Your task to perform on an android device: Open the calendar and show me this week's events? Image 0: 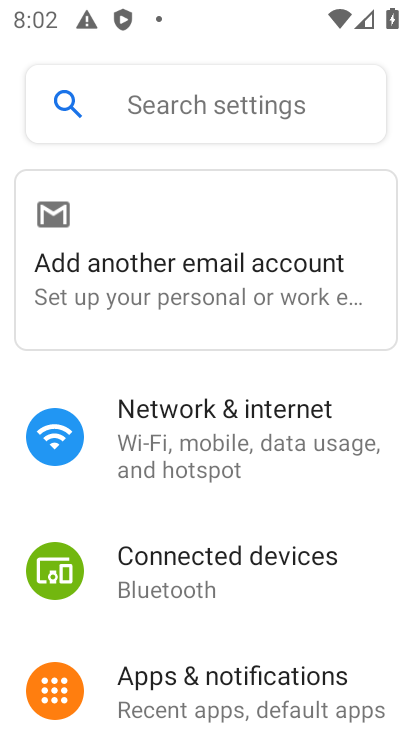
Step 0: press home button
Your task to perform on an android device: Open the calendar and show me this week's events? Image 1: 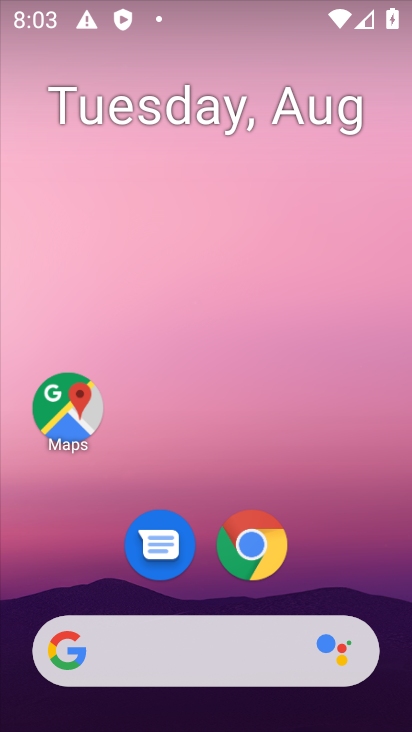
Step 1: drag from (48, 459) to (196, 68)
Your task to perform on an android device: Open the calendar and show me this week's events? Image 2: 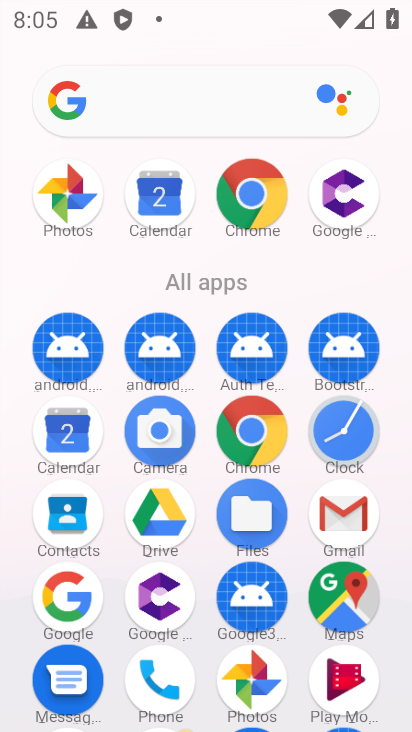
Step 2: click (141, 202)
Your task to perform on an android device: Open the calendar and show me this week's events? Image 3: 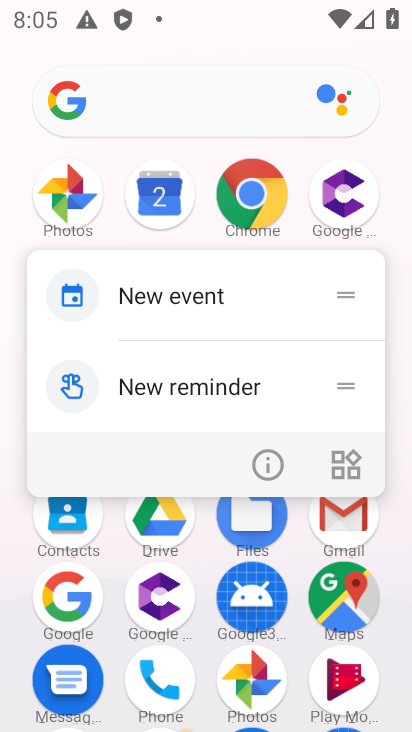
Step 3: click (142, 201)
Your task to perform on an android device: Open the calendar and show me this week's events? Image 4: 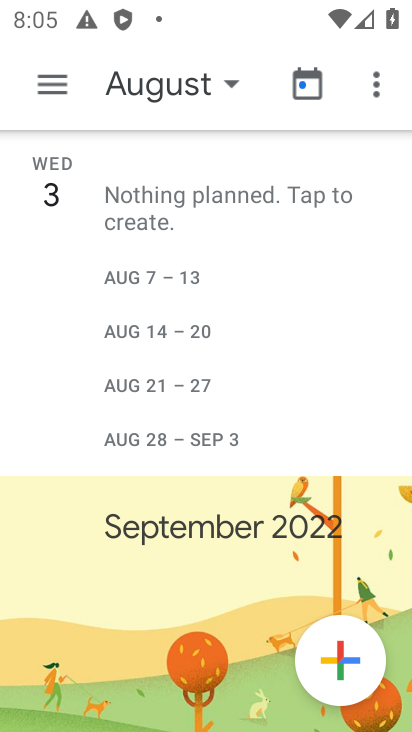
Step 4: click (181, 87)
Your task to perform on an android device: Open the calendar and show me this week's events? Image 5: 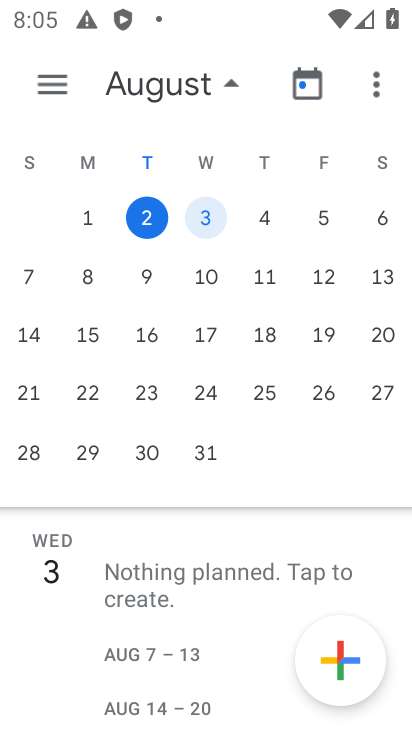
Step 5: click (89, 279)
Your task to perform on an android device: Open the calendar and show me this week's events? Image 6: 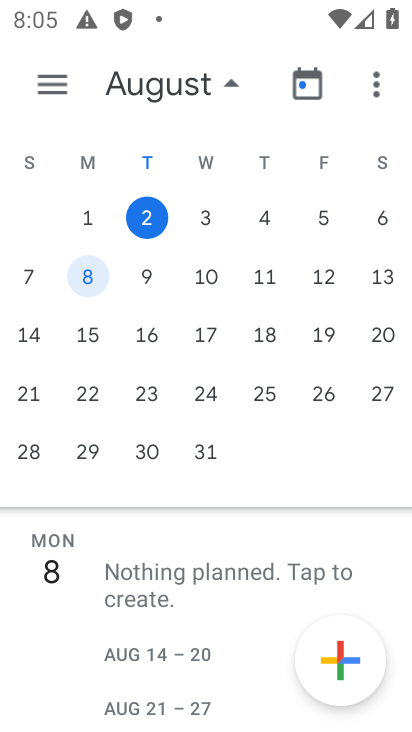
Step 6: task complete